Your task to perform on an android device: Search for the new nike air max shoes on Nike. Image 0: 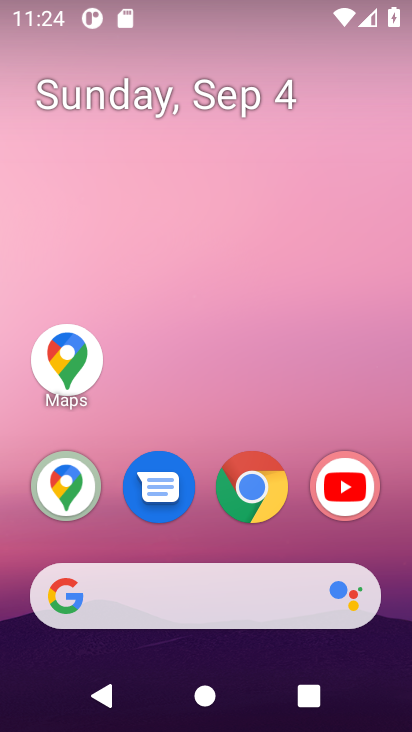
Step 0: click (68, 476)
Your task to perform on an android device: Search for the new nike air max shoes on Nike. Image 1: 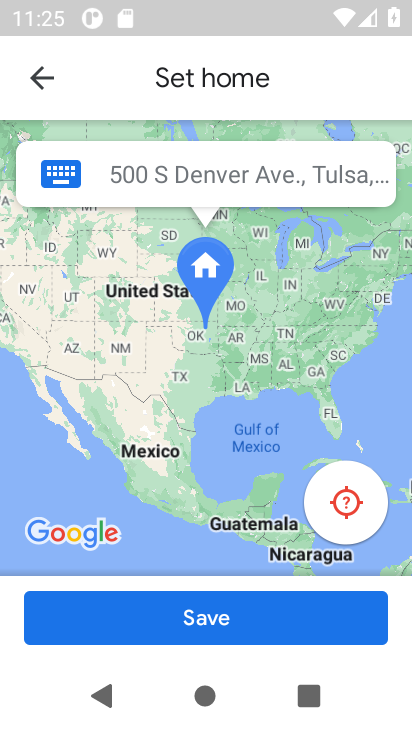
Step 1: task complete